Your task to perform on an android device: turn on bluetooth scan Image 0: 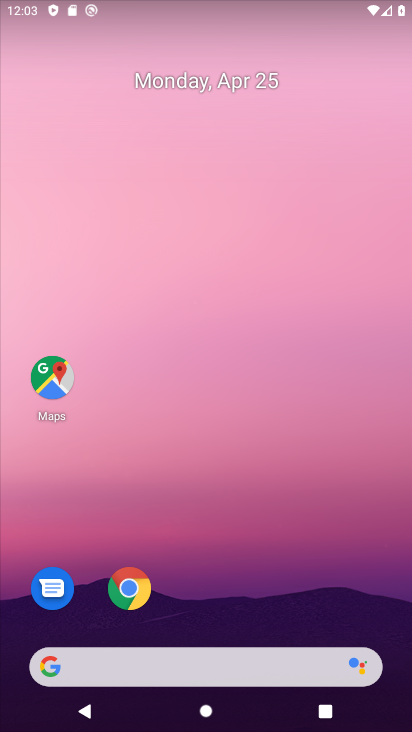
Step 0: drag from (219, 588) to (179, 181)
Your task to perform on an android device: turn on bluetooth scan Image 1: 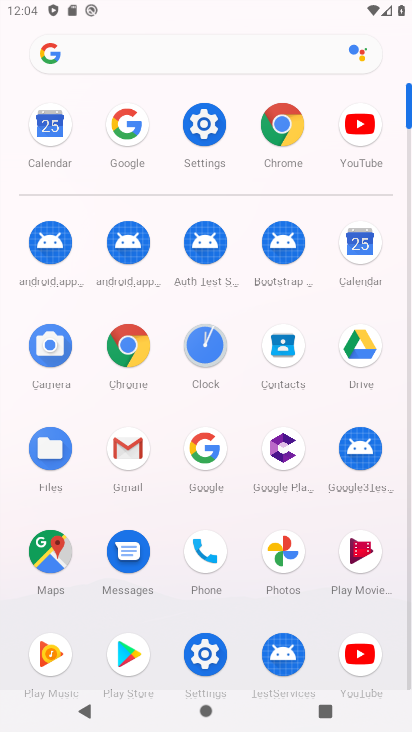
Step 1: click (197, 133)
Your task to perform on an android device: turn on bluetooth scan Image 2: 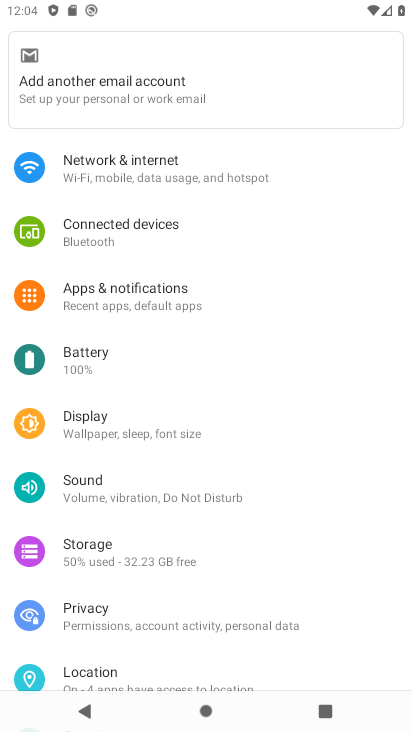
Step 2: click (108, 678)
Your task to perform on an android device: turn on bluetooth scan Image 3: 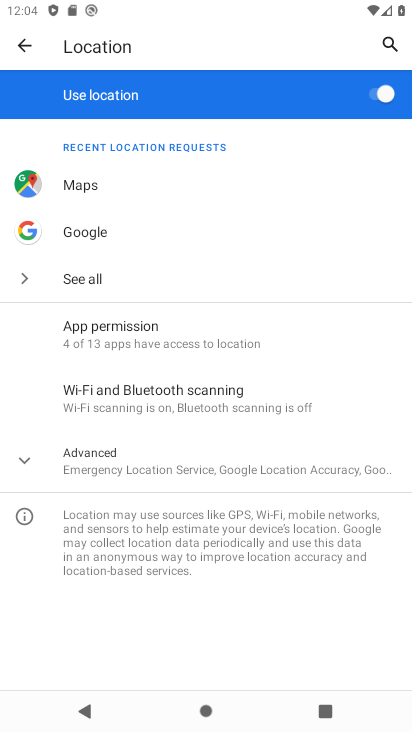
Step 3: click (200, 401)
Your task to perform on an android device: turn on bluetooth scan Image 4: 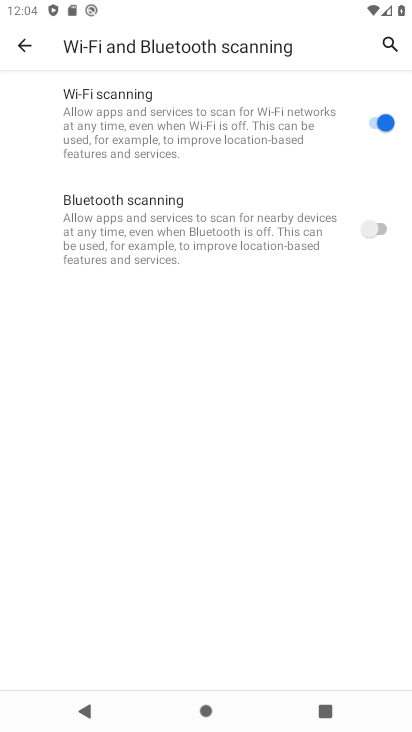
Step 4: click (383, 226)
Your task to perform on an android device: turn on bluetooth scan Image 5: 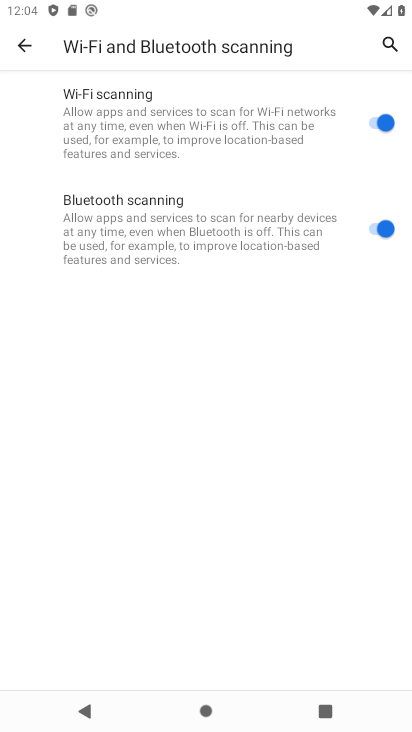
Step 5: task complete